Your task to perform on an android device: Toggle the flashlight Image 0: 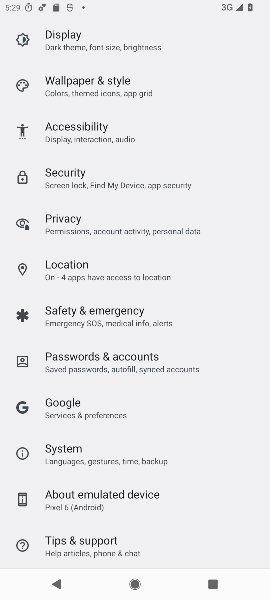
Step 0: press home button
Your task to perform on an android device: Toggle the flashlight Image 1: 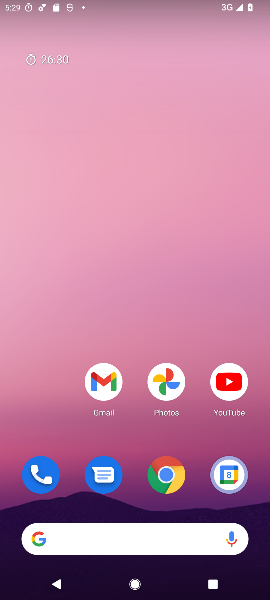
Step 1: drag from (151, 5) to (164, 254)
Your task to perform on an android device: Toggle the flashlight Image 2: 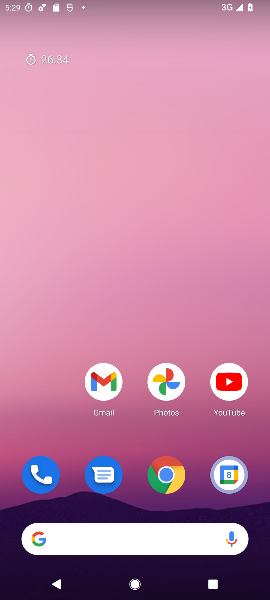
Step 2: drag from (133, 30) to (141, 372)
Your task to perform on an android device: Toggle the flashlight Image 3: 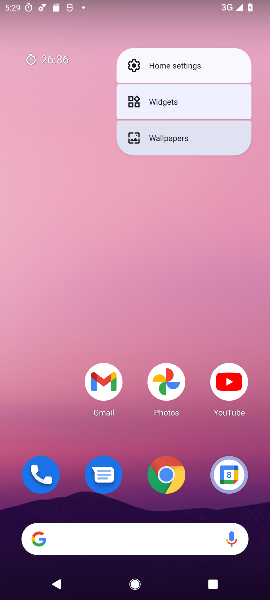
Step 3: click (87, 205)
Your task to perform on an android device: Toggle the flashlight Image 4: 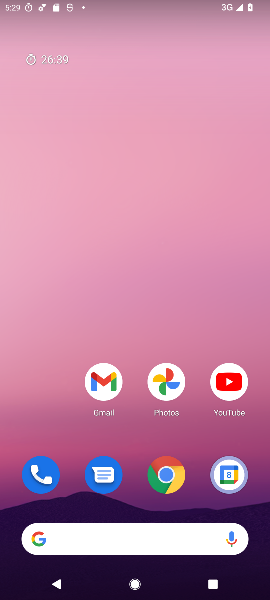
Step 4: drag from (150, 0) to (142, 456)
Your task to perform on an android device: Toggle the flashlight Image 5: 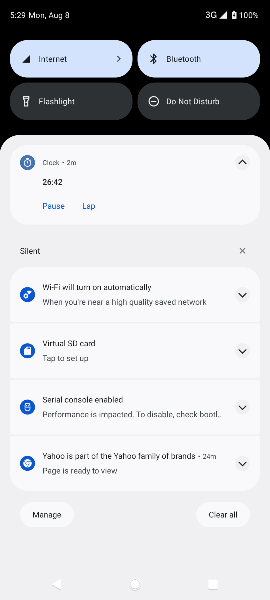
Step 5: drag from (139, 20) to (132, 347)
Your task to perform on an android device: Toggle the flashlight Image 6: 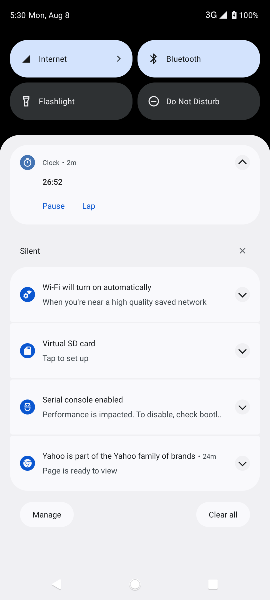
Step 6: click (54, 103)
Your task to perform on an android device: Toggle the flashlight Image 7: 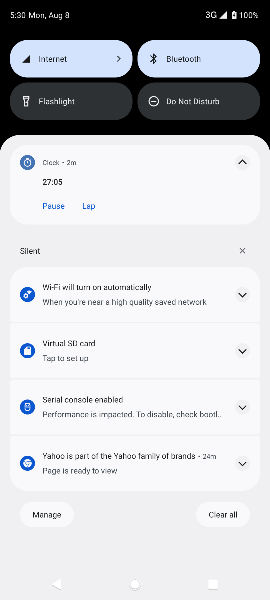
Step 7: task complete